Your task to perform on an android device: Open the stopwatch Image 0: 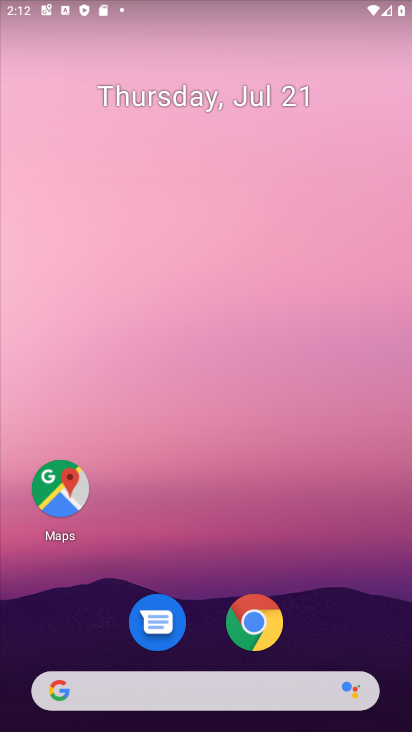
Step 0: press home button
Your task to perform on an android device: Open the stopwatch Image 1: 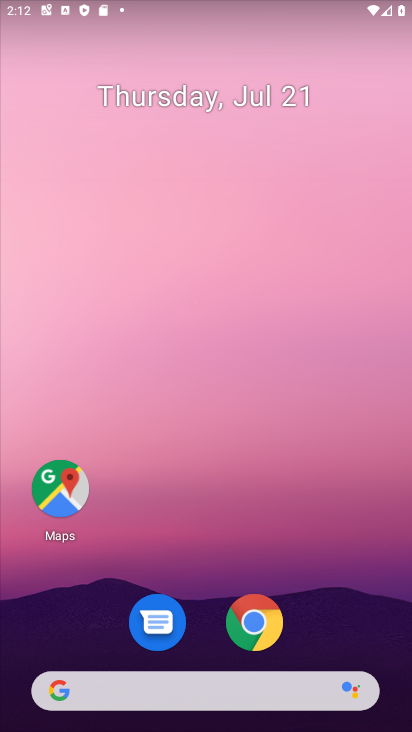
Step 1: drag from (309, 705) to (260, 174)
Your task to perform on an android device: Open the stopwatch Image 2: 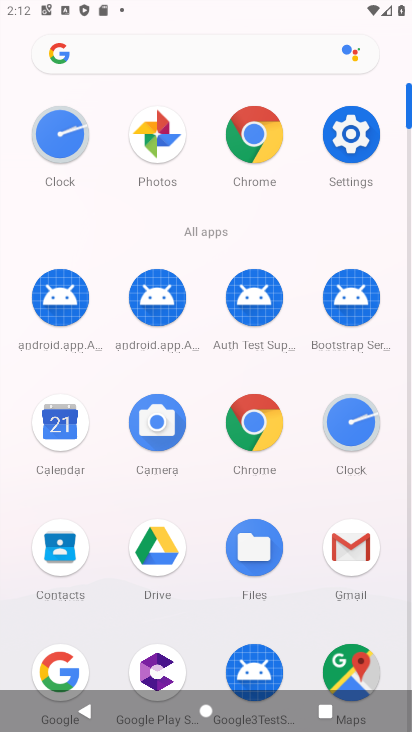
Step 2: click (349, 406)
Your task to perform on an android device: Open the stopwatch Image 3: 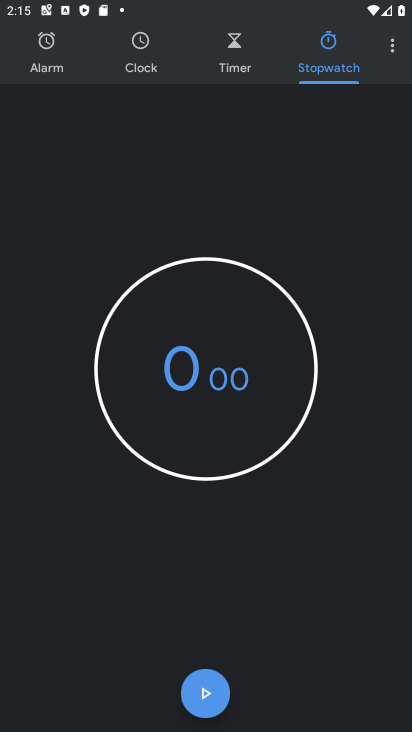
Step 3: task complete